Your task to perform on an android device: Go to Yahoo.com Image 0: 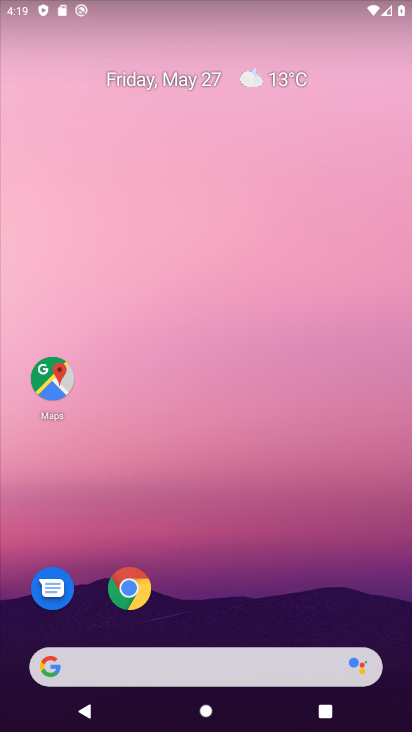
Step 0: click (133, 581)
Your task to perform on an android device: Go to Yahoo.com Image 1: 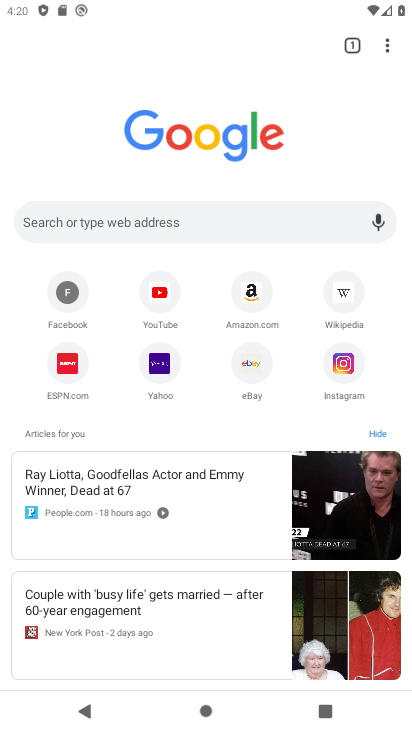
Step 1: click (159, 373)
Your task to perform on an android device: Go to Yahoo.com Image 2: 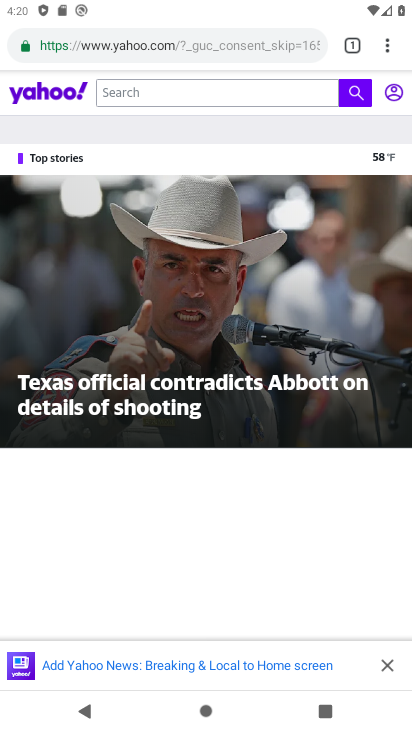
Step 2: task complete